Your task to perform on an android device: Open the calendar app, open the side menu, and click the "Day" option Image 0: 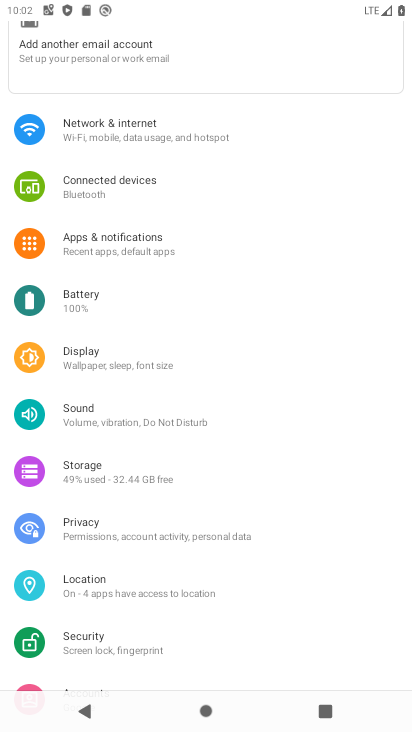
Step 0: press home button
Your task to perform on an android device: Open the calendar app, open the side menu, and click the "Day" option Image 1: 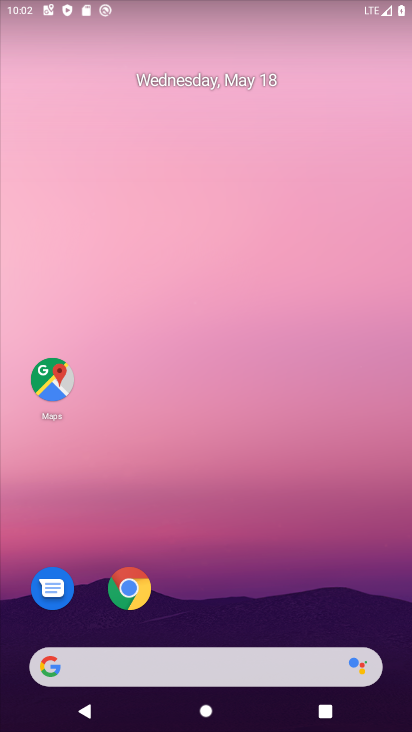
Step 1: drag from (346, 627) to (249, 64)
Your task to perform on an android device: Open the calendar app, open the side menu, and click the "Day" option Image 2: 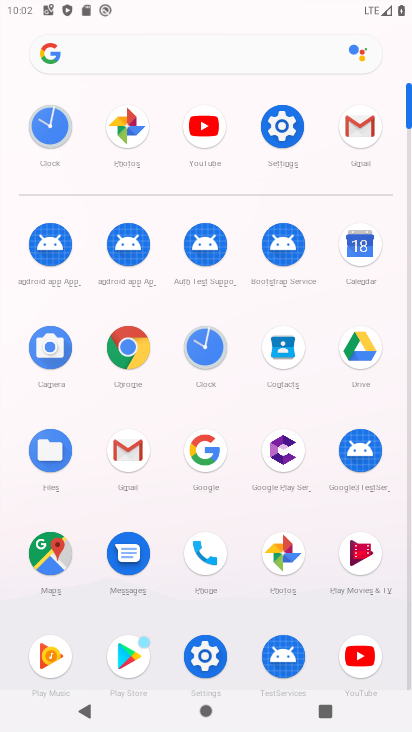
Step 2: click (358, 240)
Your task to perform on an android device: Open the calendar app, open the side menu, and click the "Day" option Image 3: 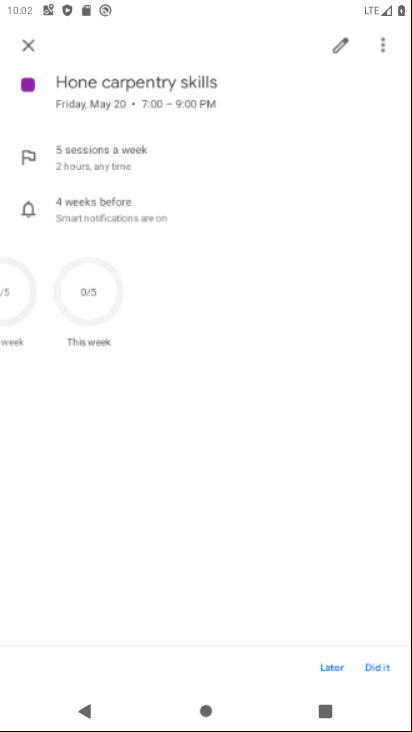
Step 3: click (34, 45)
Your task to perform on an android device: Open the calendar app, open the side menu, and click the "Day" option Image 4: 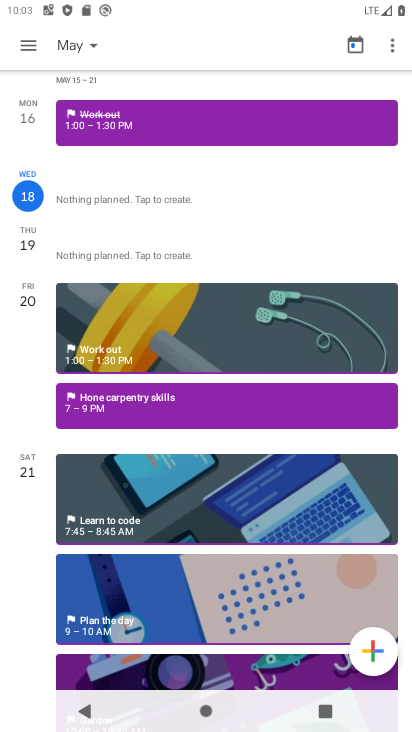
Step 4: click (29, 47)
Your task to perform on an android device: Open the calendar app, open the side menu, and click the "Day" option Image 5: 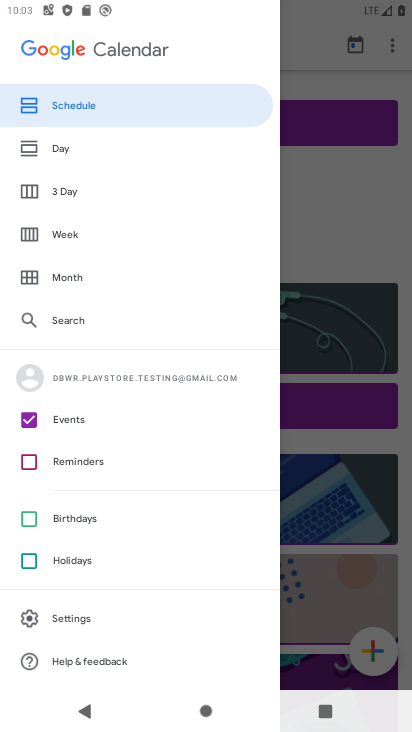
Step 5: click (53, 158)
Your task to perform on an android device: Open the calendar app, open the side menu, and click the "Day" option Image 6: 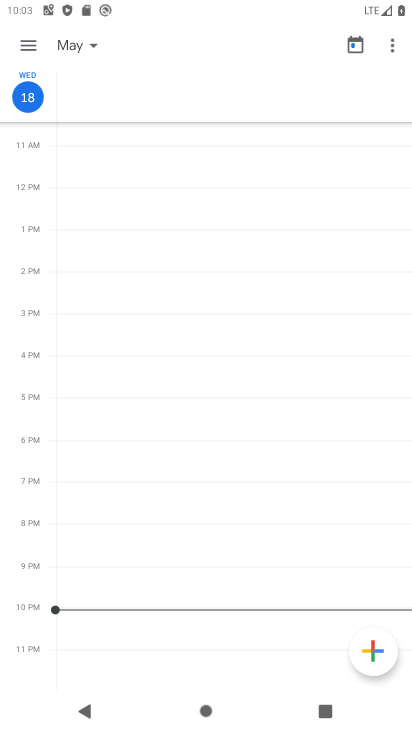
Step 6: task complete